Your task to perform on an android device: Open Wikipedia Image 0: 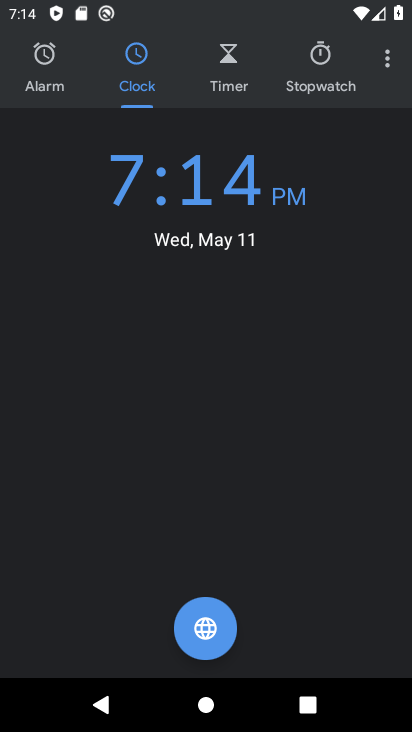
Step 0: press home button
Your task to perform on an android device: Open Wikipedia Image 1: 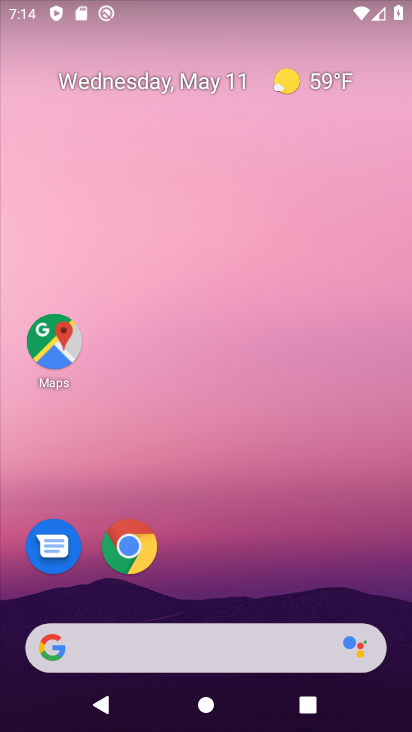
Step 1: click (124, 540)
Your task to perform on an android device: Open Wikipedia Image 2: 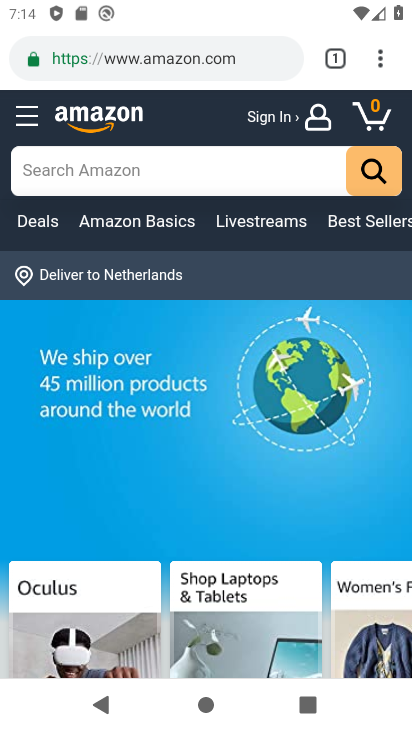
Step 2: click (384, 64)
Your task to perform on an android device: Open Wikipedia Image 3: 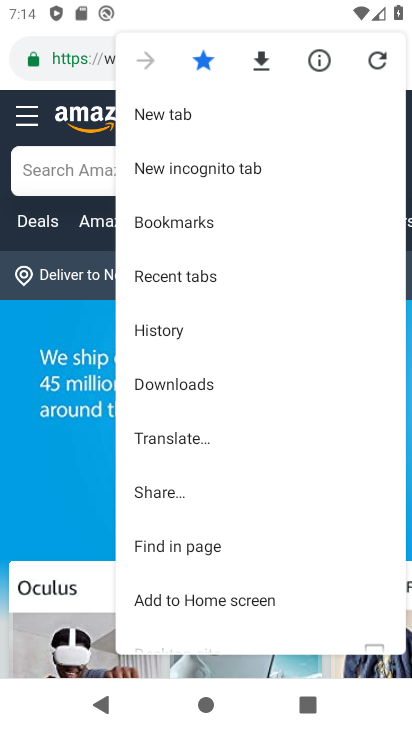
Step 3: click (148, 109)
Your task to perform on an android device: Open Wikipedia Image 4: 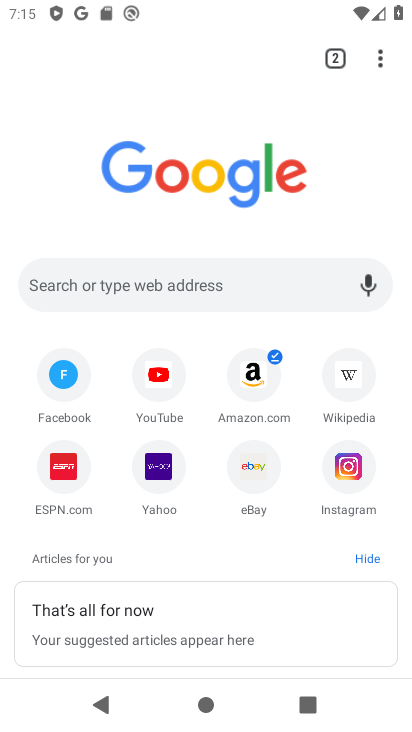
Step 4: click (336, 367)
Your task to perform on an android device: Open Wikipedia Image 5: 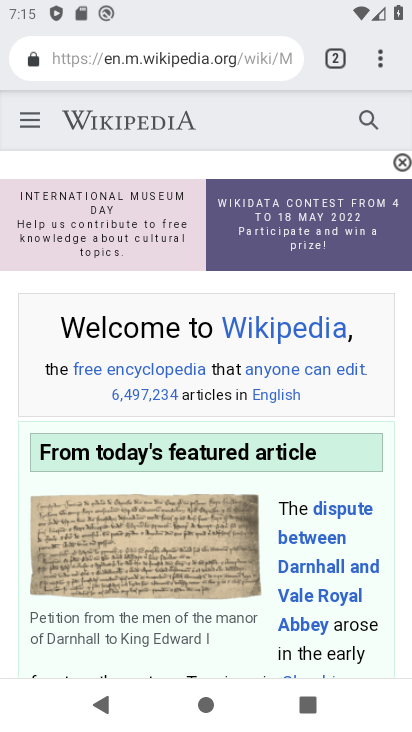
Step 5: task complete